Your task to perform on an android device: Go to notification settings Image 0: 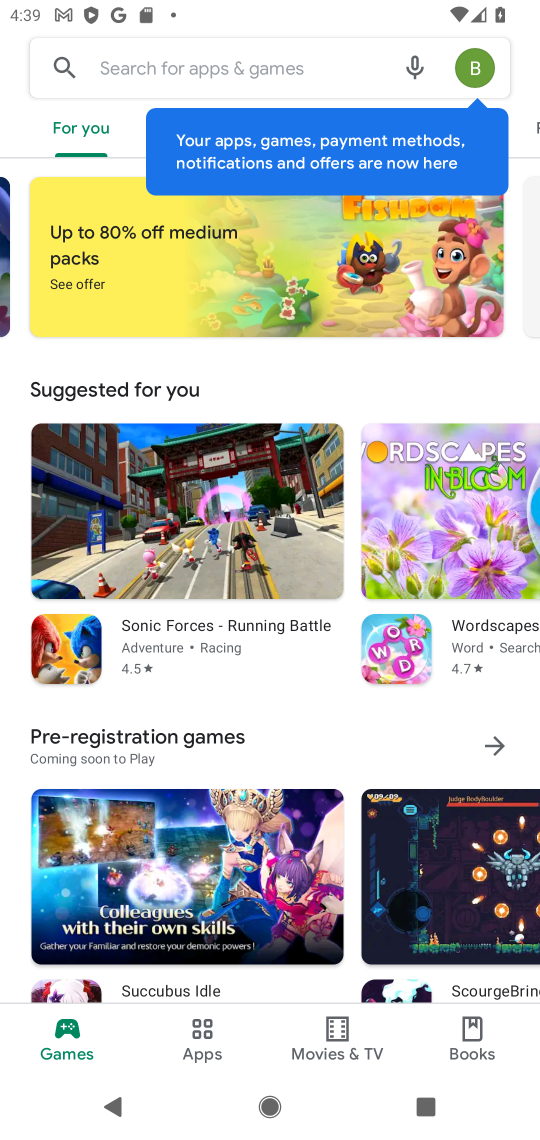
Step 0: press home button
Your task to perform on an android device: Go to notification settings Image 1: 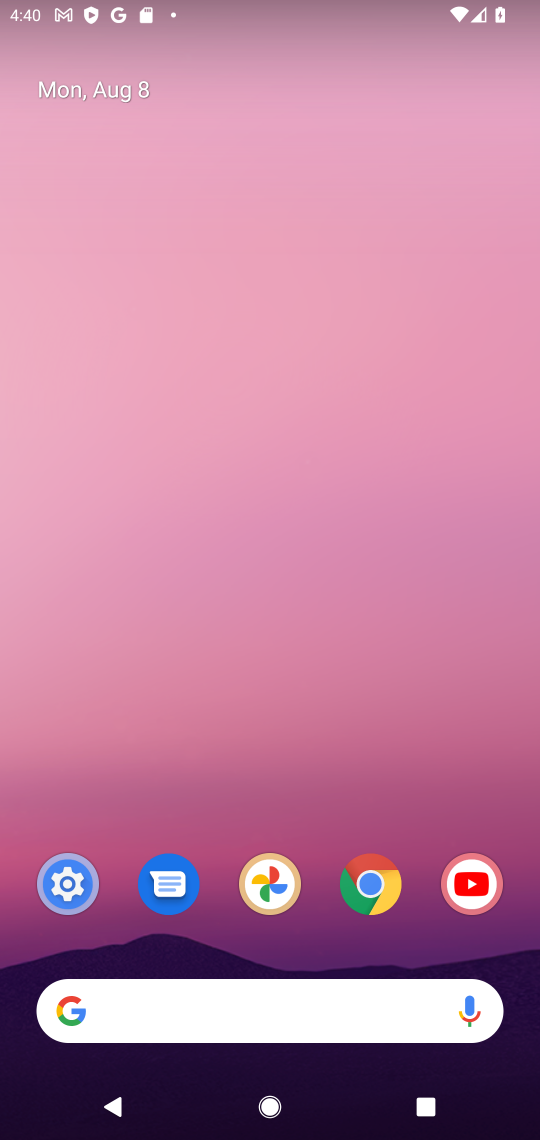
Step 1: click (49, 861)
Your task to perform on an android device: Go to notification settings Image 2: 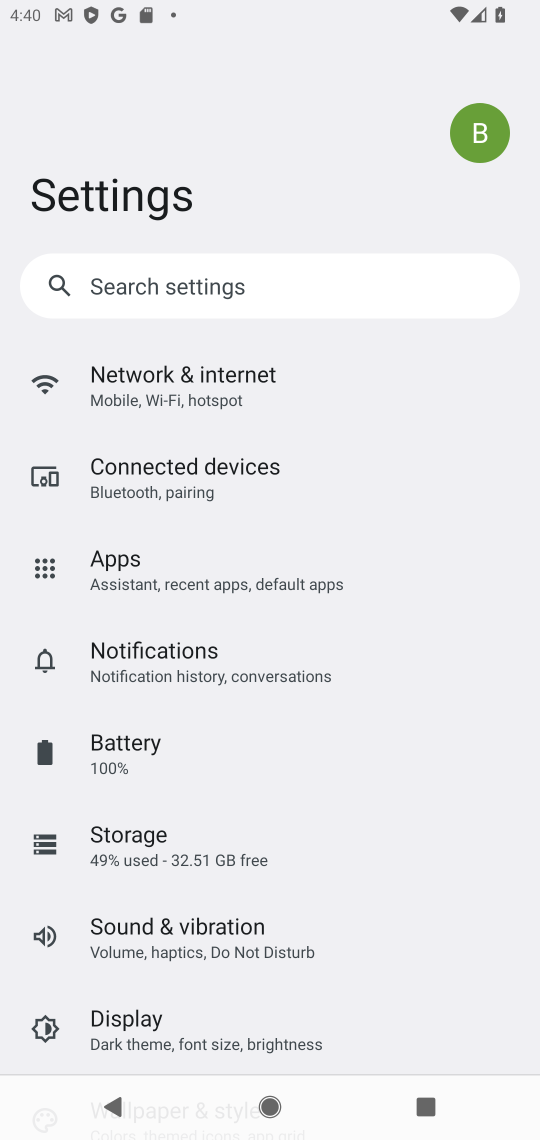
Step 2: click (209, 680)
Your task to perform on an android device: Go to notification settings Image 3: 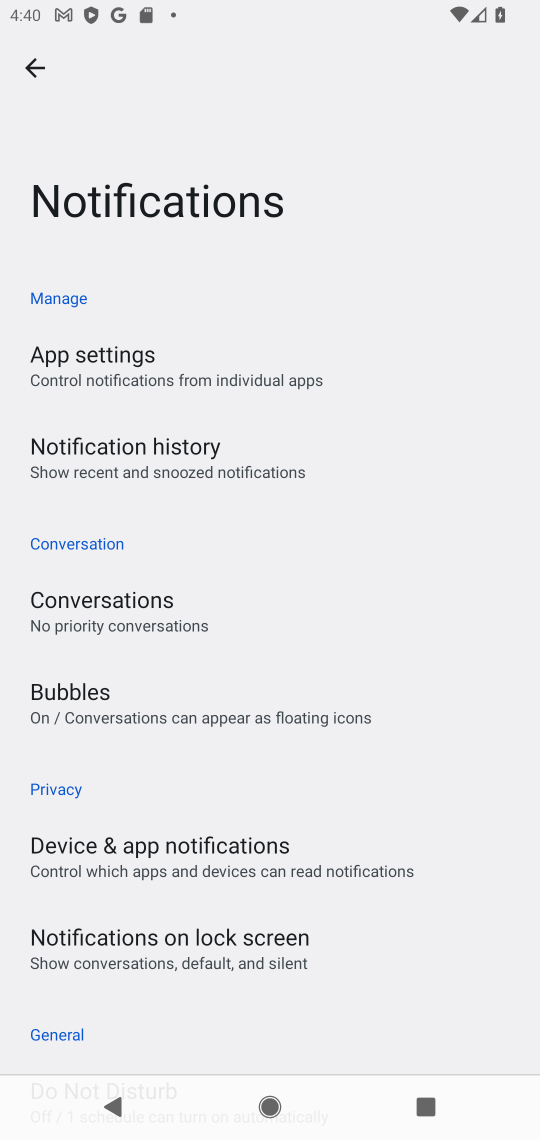
Step 3: task complete